Your task to perform on an android device: Search for pizza restaurants on Maps Image 0: 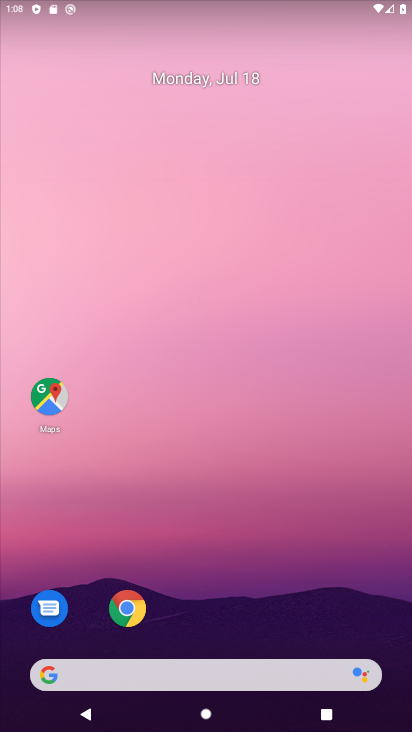
Step 0: drag from (347, 592) to (203, 184)
Your task to perform on an android device: Search for pizza restaurants on Maps Image 1: 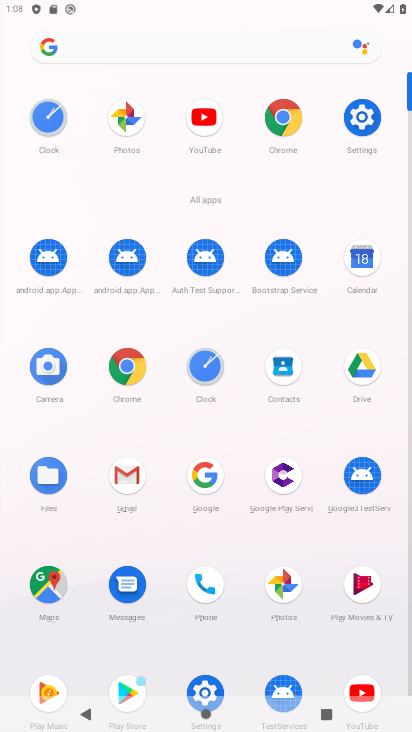
Step 1: click (51, 572)
Your task to perform on an android device: Search for pizza restaurants on Maps Image 2: 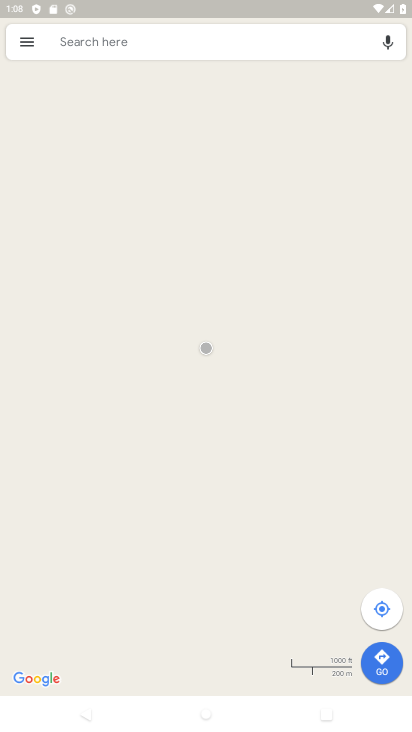
Step 2: click (192, 48)
Your task to perform on an android device: Search for pizza restaurants on Maps Image 3: 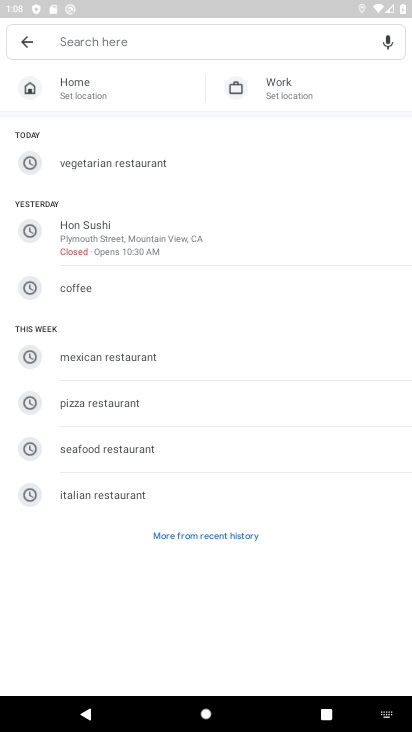
Step 3: click (159, 397)
Your task to perform on an android device: Search for pizza restaurants on Maps Image 4: 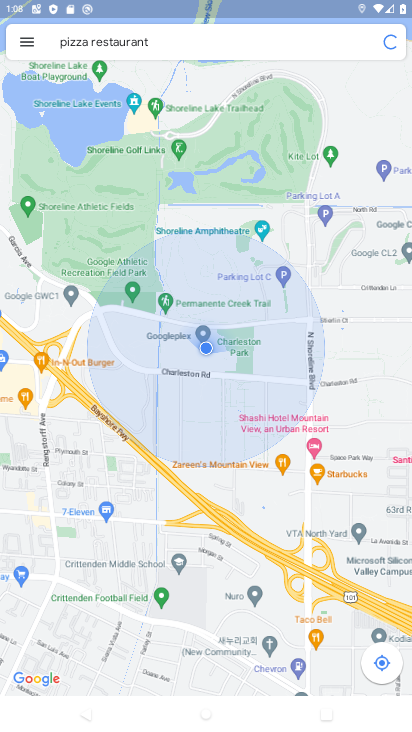
Step 4: task complete